Your task to perform on an android device: turn on priority inbox in the gmail app Image 0: 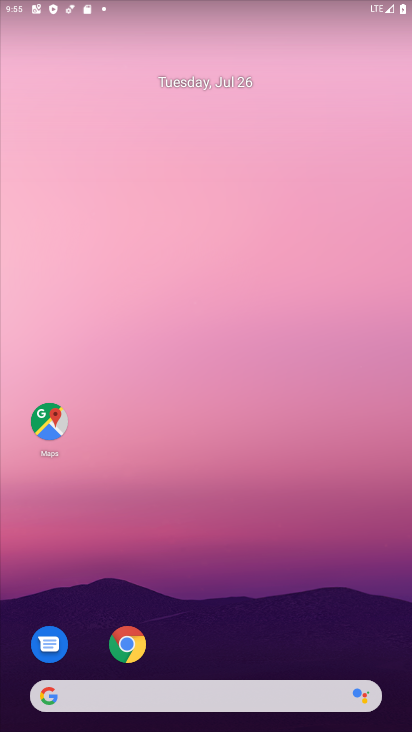
Step 0: drag from (259, 650) to (221, 0)
Your task to perform on an android device: turn on priority inbox in the gmail app Image 1: 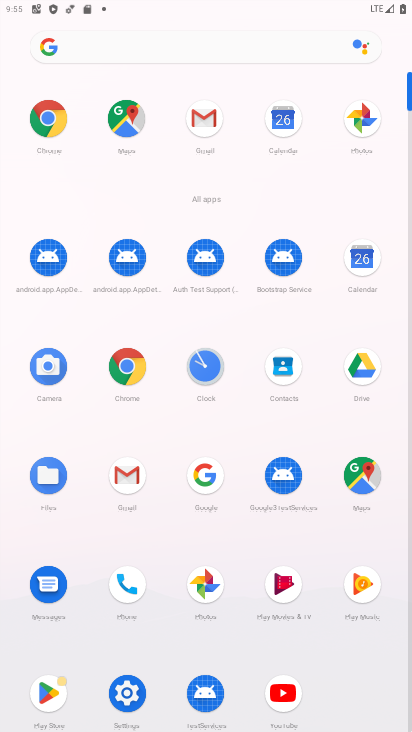
Step 1: click (198, 121)
Your task to perform on an android device: turn on priority inbox in the gmail app Image 2: 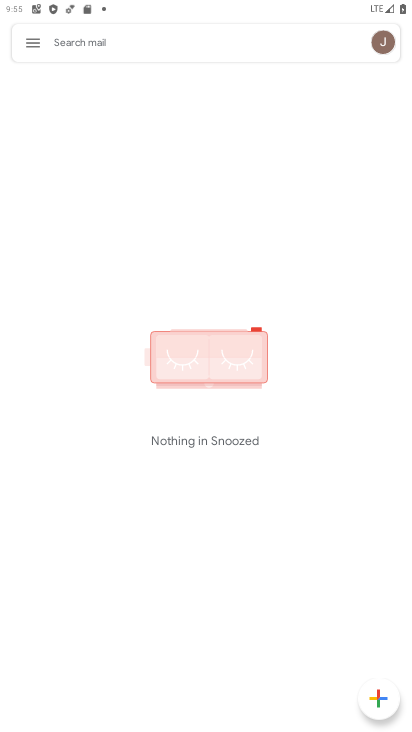
Step 2: click (38, 49)
Your task to perform on an android device: turn on priority inbox in the gmail app Image 3: 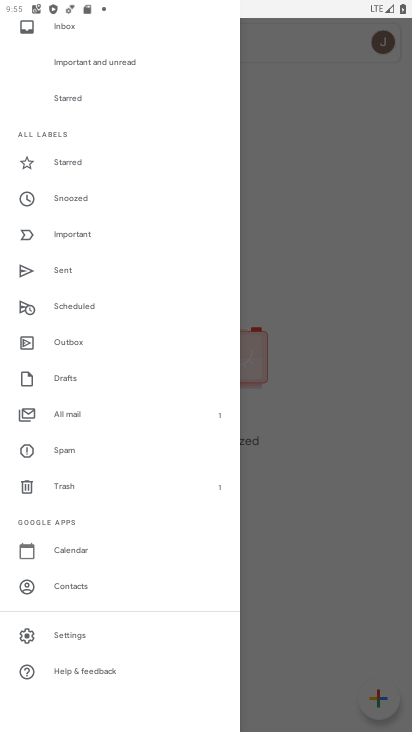
Step 3: click (75, 633)
Your task to perform on an android device: turn on priority inbox in the gmail app Image 4: 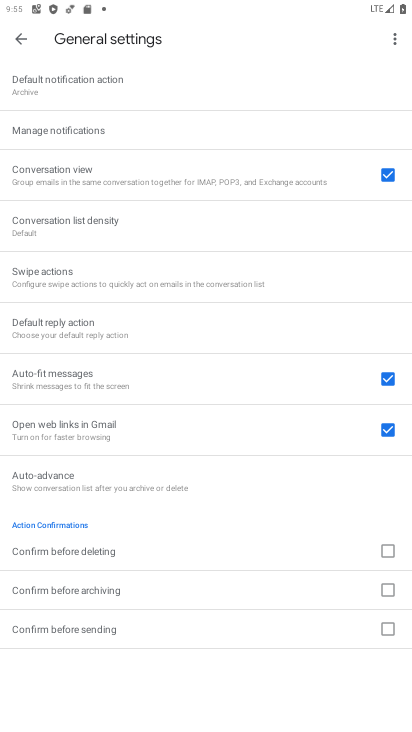
Step 4: click (20, 39)
Your task to perform on an android device: turn on priority inbox in the gmail app Image 5: 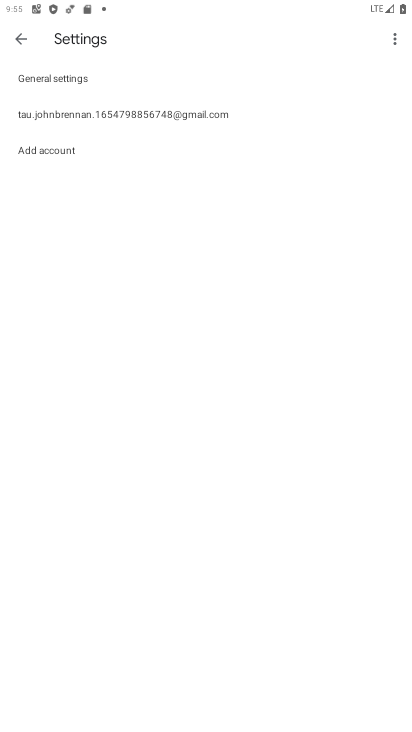
Step 5: click (44, 115)
Your task to perform on an android device: turn on priority inbox in the gmail app Image 6: 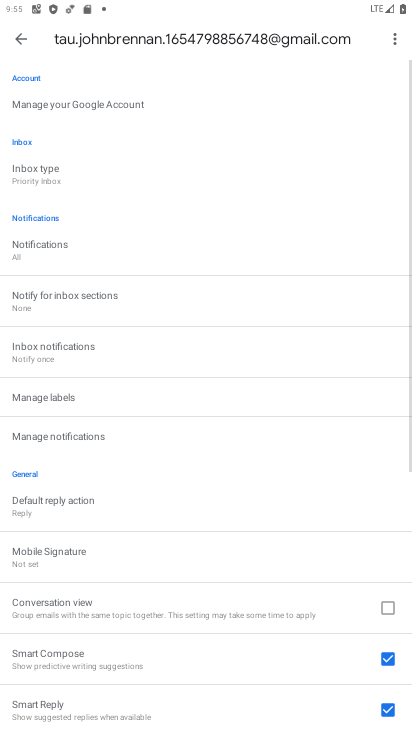
Step 6: click (44, 175)
Your task to perform on an android device: turn on priority inbox in the gmail app Image 7: 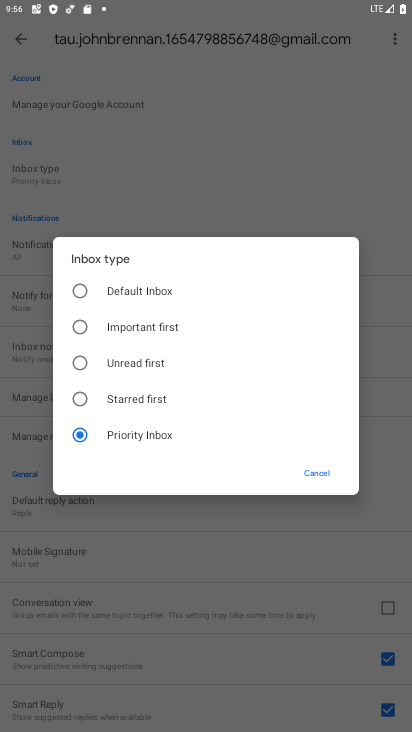
Step 7: task complete